Your task to perform on an android device: change the upload size in google photos Image 0: 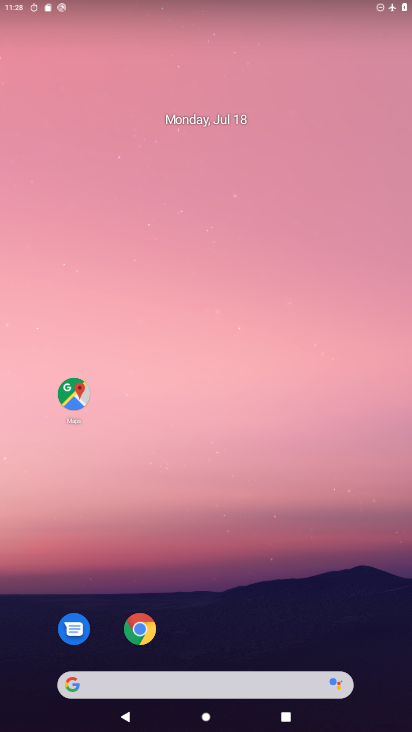
Step 0: drag from (318, 581) to (217, 0)
Your task to perform on an android device: change the upload size in google photos Image 1: 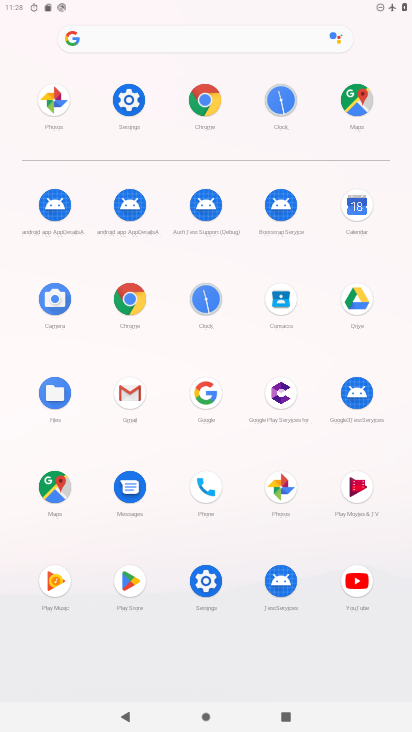
Step 1: click (285, 489)
Your task to perform on an android device: change the upload size in google photos Image 2: 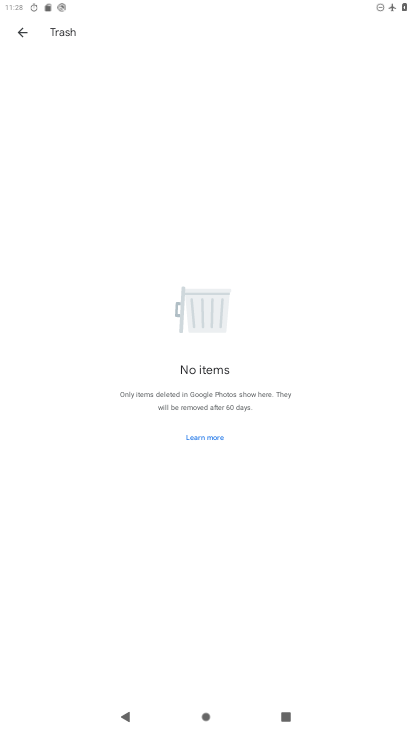
Step 2: click (27, 34)
Your task to perform on an android device: change the upload size in google photos Image 3: 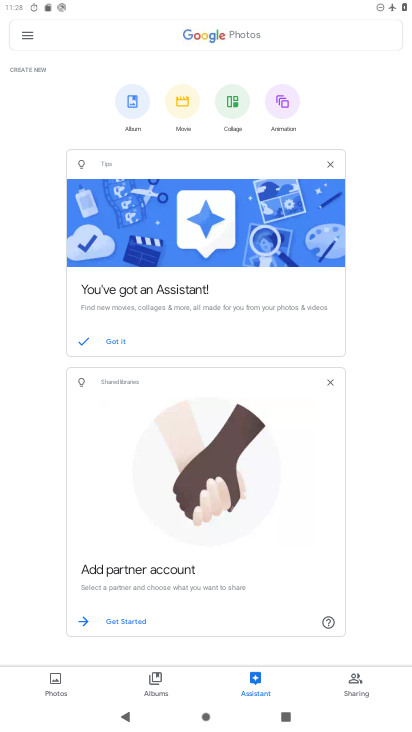
Step 3: click (29, 35)
Your task to perform on an android device: change the upload size in google photos Image 4: 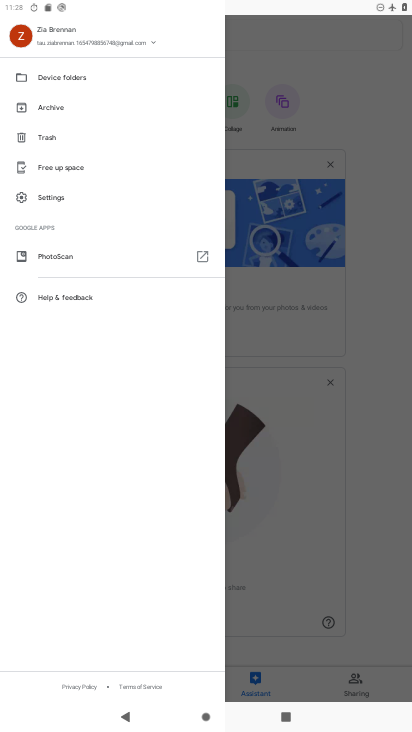
Step 4: click (61, 207)
Your task to perform on an android device: change the upload size in google photos Image 5: 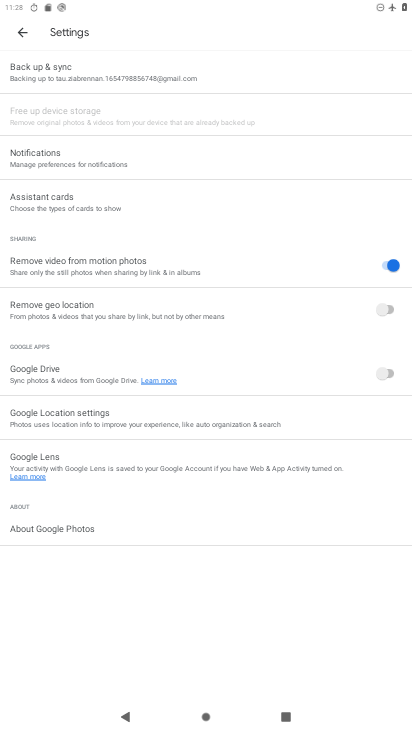
Step 5: click (107, 72)
Your task to perform on an android device: change the upload size in google photos Image 6: 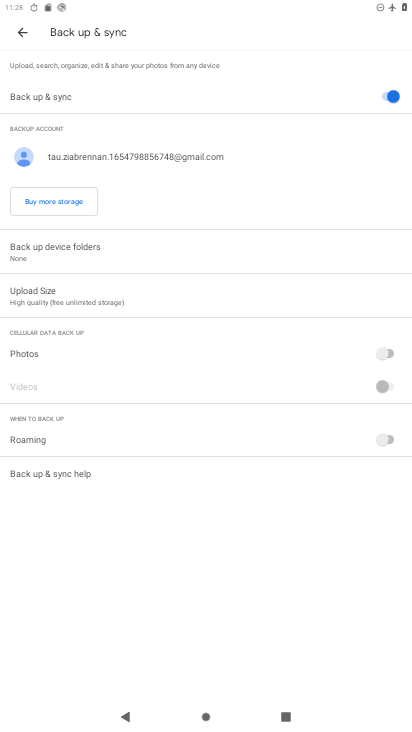
Step 6: click (108, 298)
Your task to perform on an android device: change the upload size in google photos Image 7: 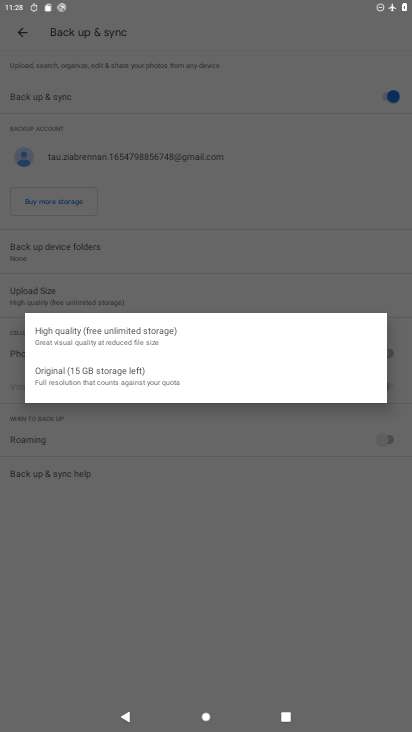
Step 7: click (120, 375)
Your task to perform on an android device: change the upload size in google photos Image 8: 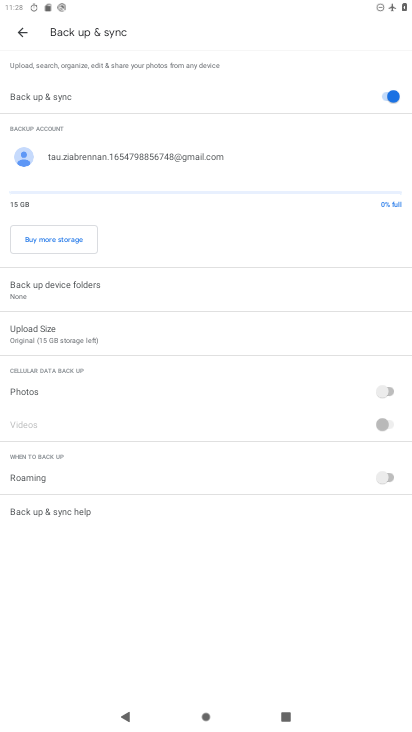
Step 8: task complete